Your task to perform on an android device: turn off airplane mode Image 0: 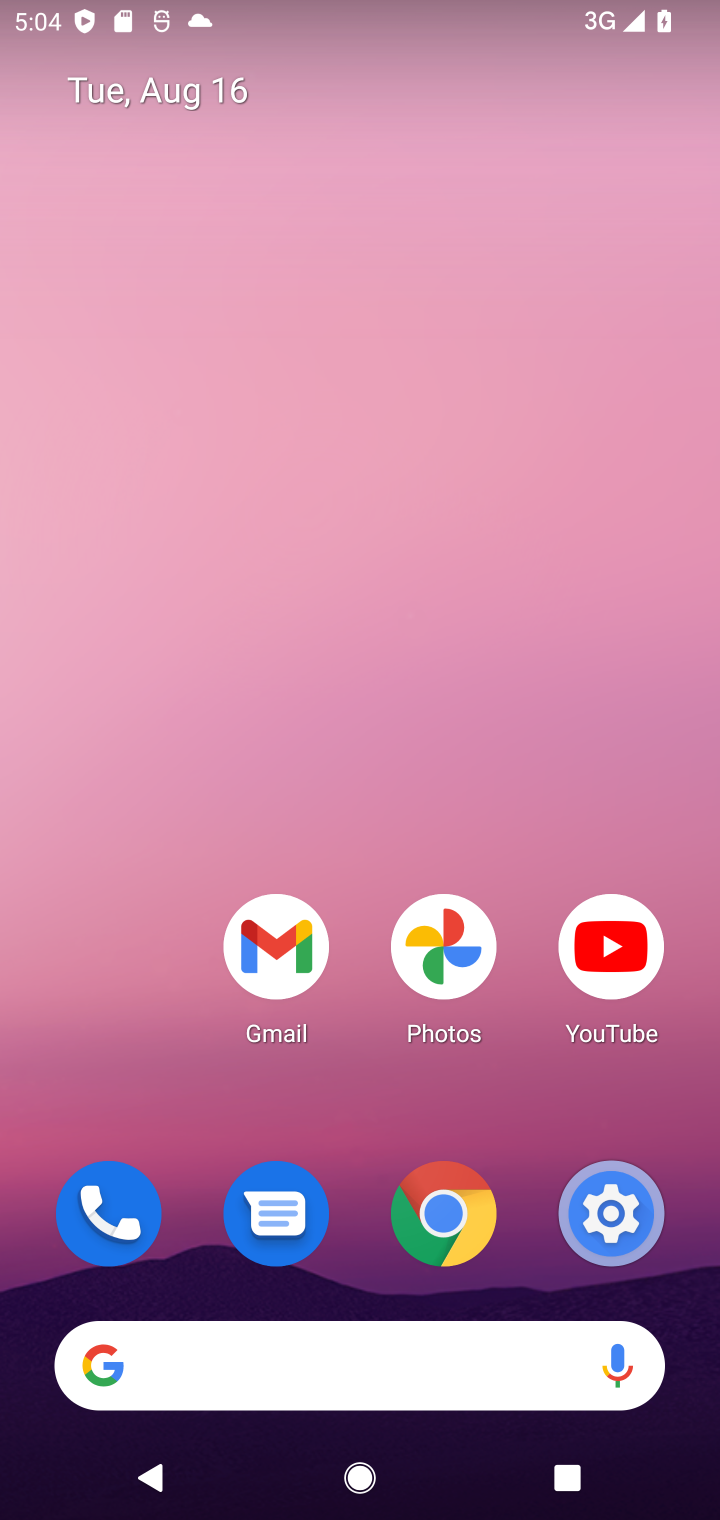
Step 0: drag from (387, 654) to (484, 25)
Your task to perform on an android device: turn off airplane mode Image 1: 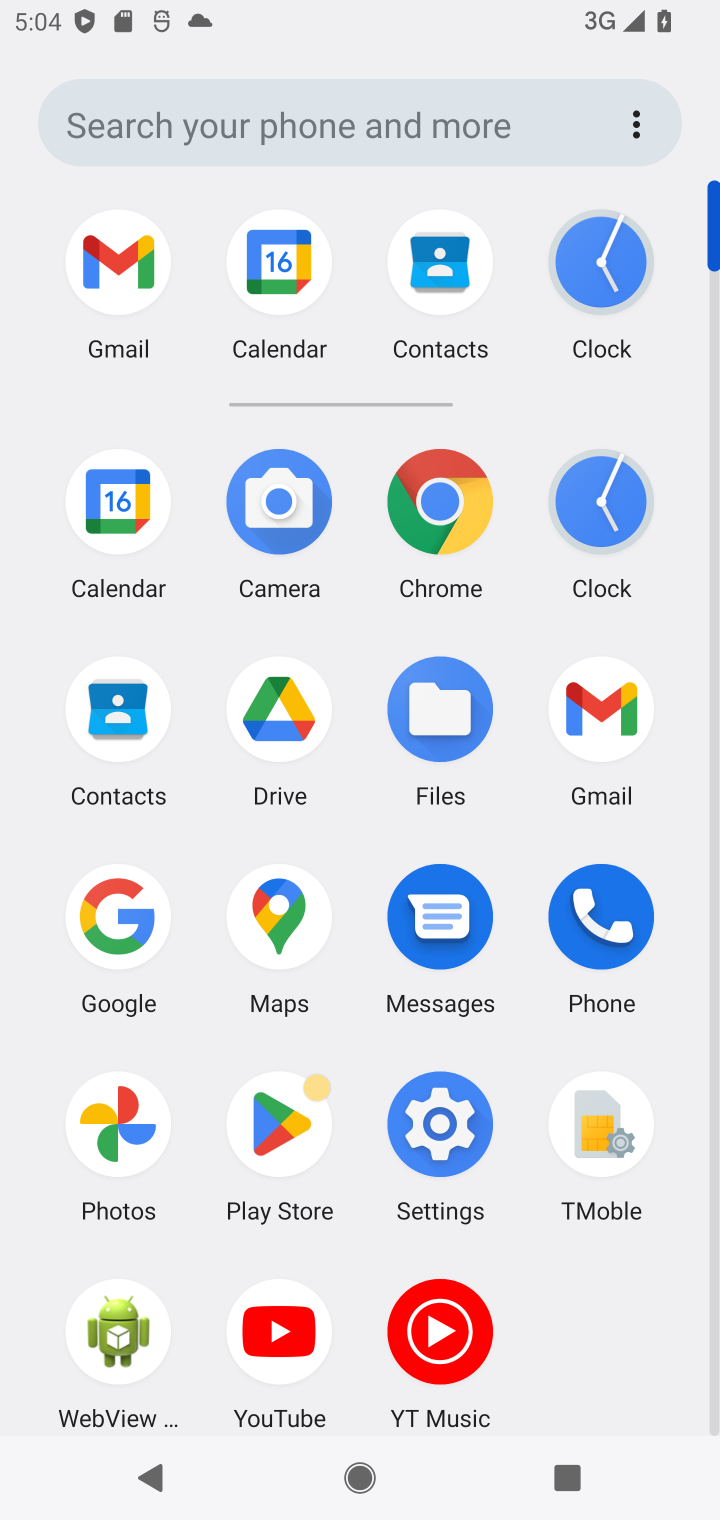
Step 1: click (444, 1107)
Your task to perform on an android device: turn off airplane mode Image 2: 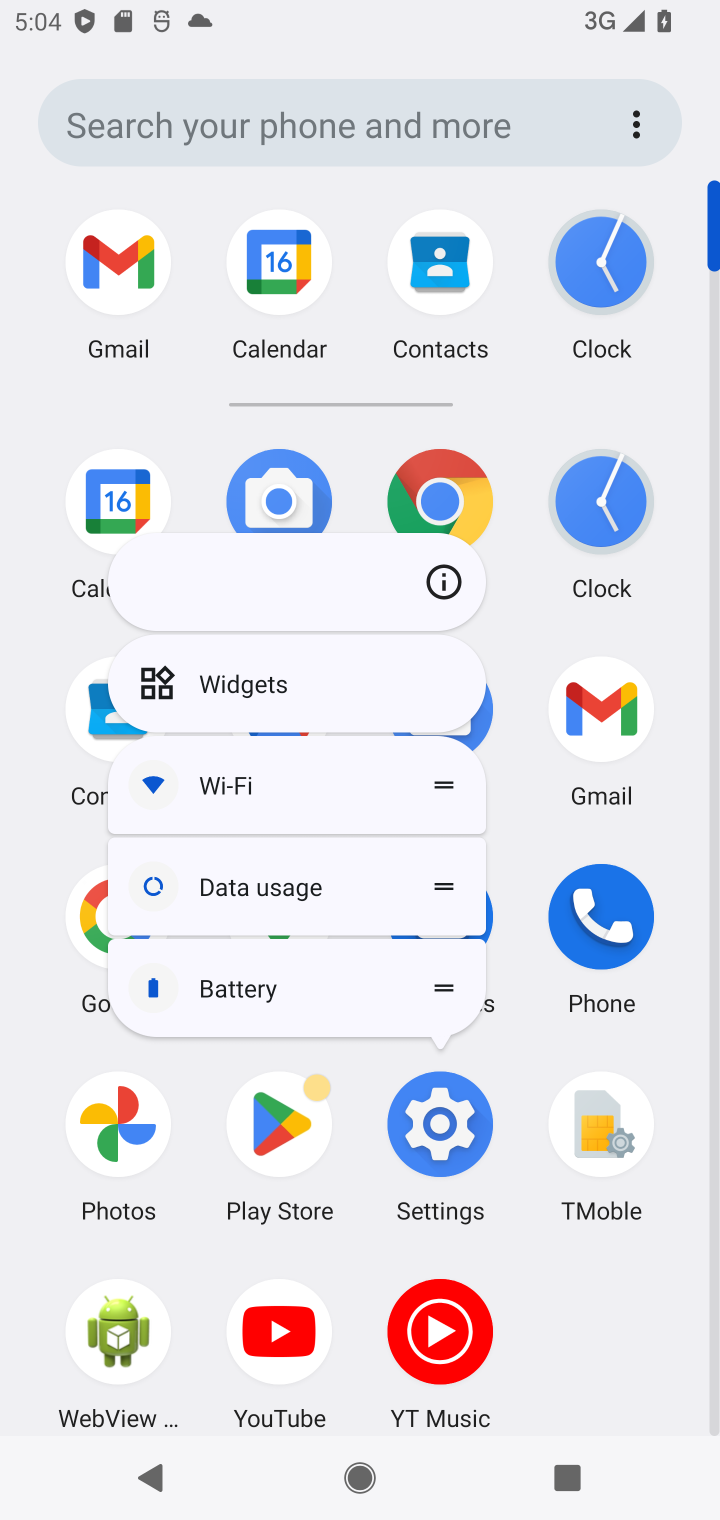
Step 2: click (425, 1132)
Your task to perform on an android device: turn off airplane mode Image 3: 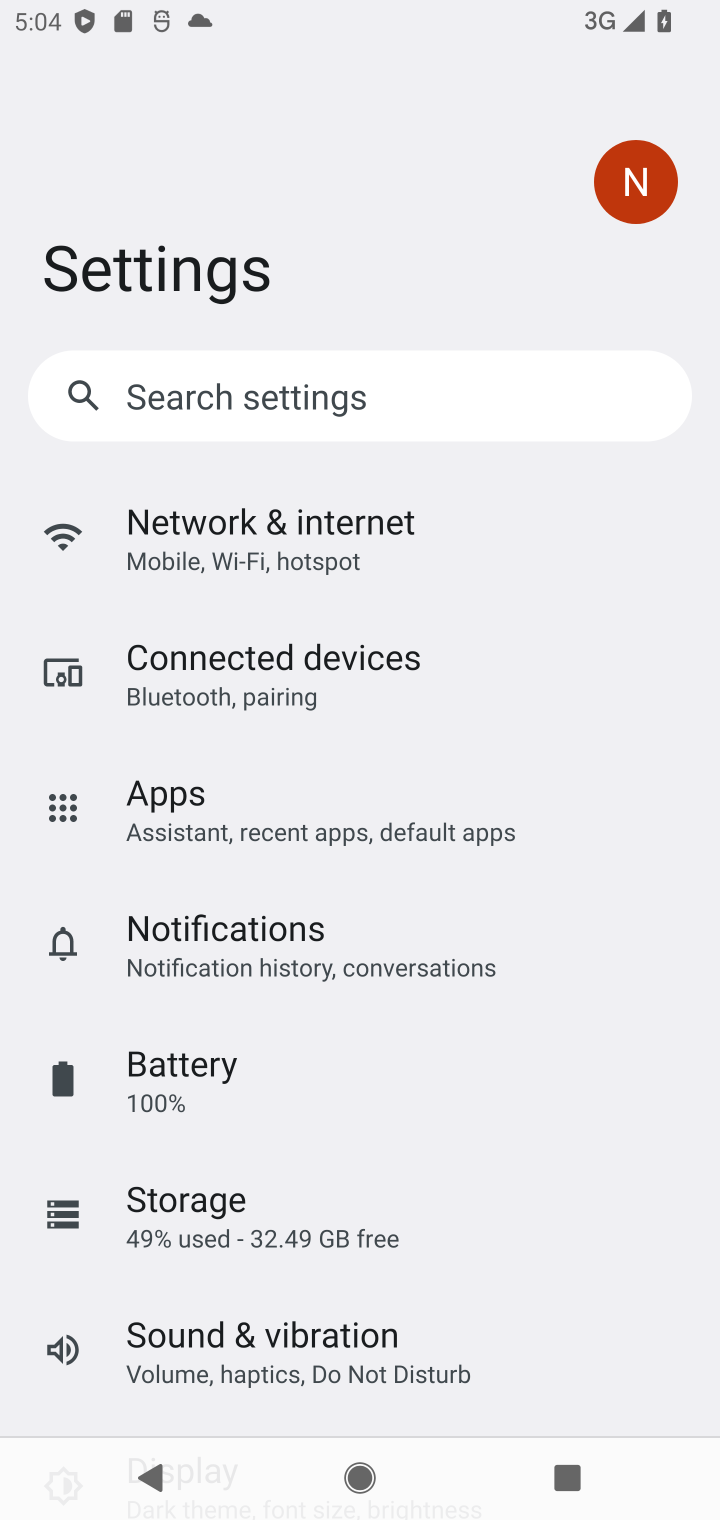
Step 3: click (247, 555)
Your task to perform on an android device: turn off airplane mode Image 4: 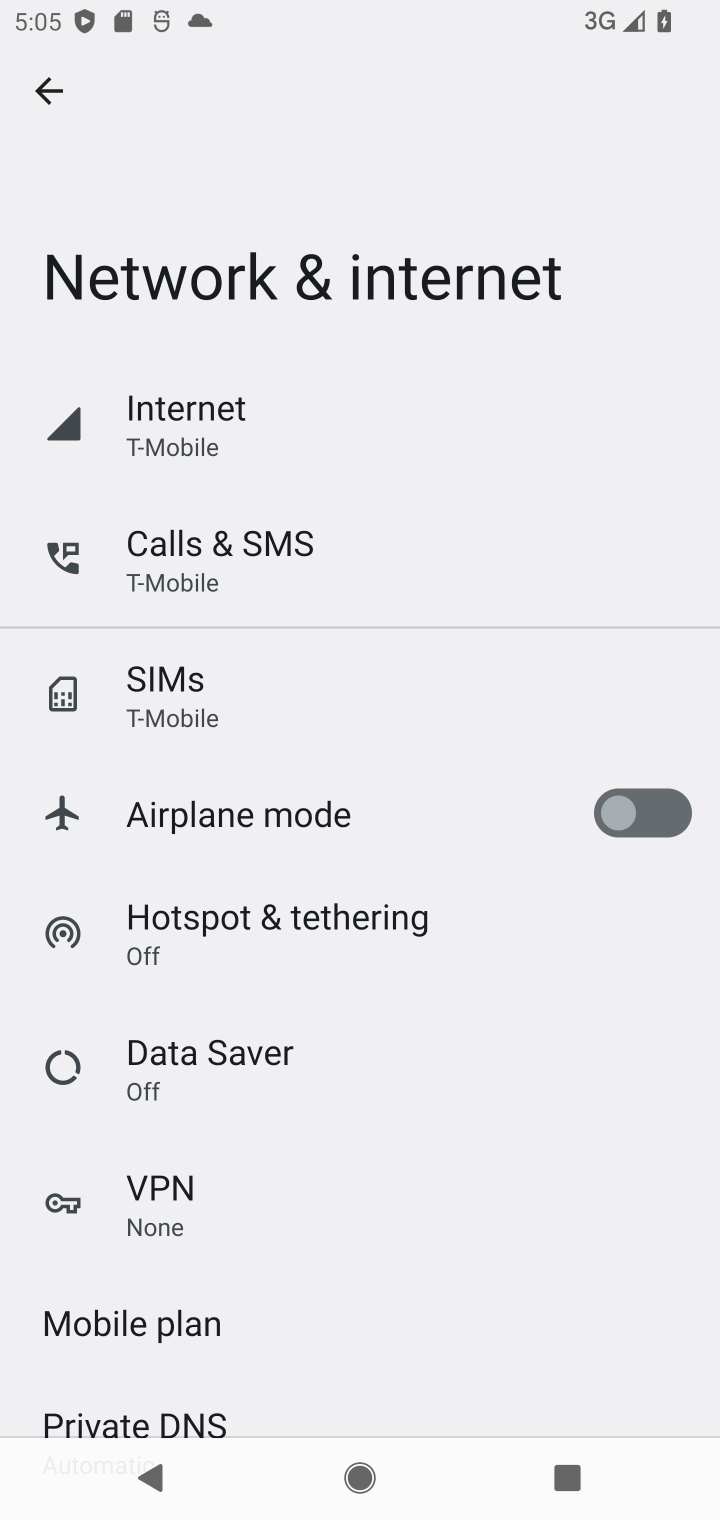
Step 4: task complete